Your task to perform on an android device: Turn off the flashlight Image 0: 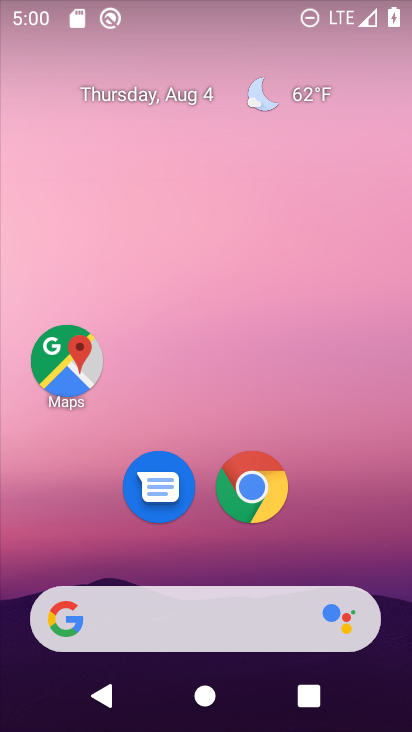
Step 0: drag from (181, 465) to (179, 141)
Your task to perform on an android device: Turn off the flashlight Image 1: 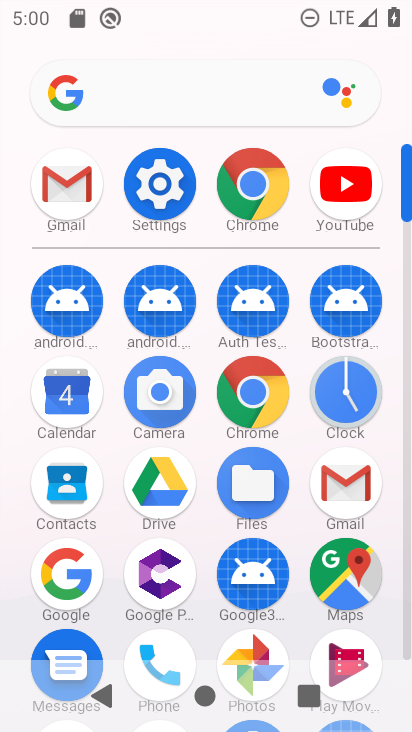
Step 1: click (180, 159)
Your task to perform on an android device: Turn off the flashlight Image 2: 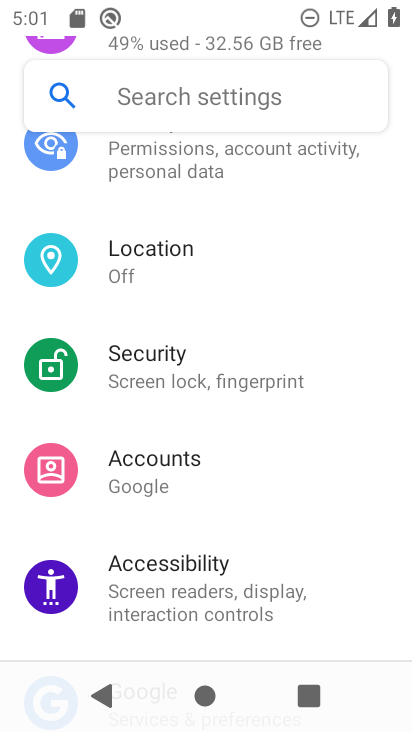
Step 2: click (248, 84)
Your task to perform on an android device: Turn off the flashlight Image 3: 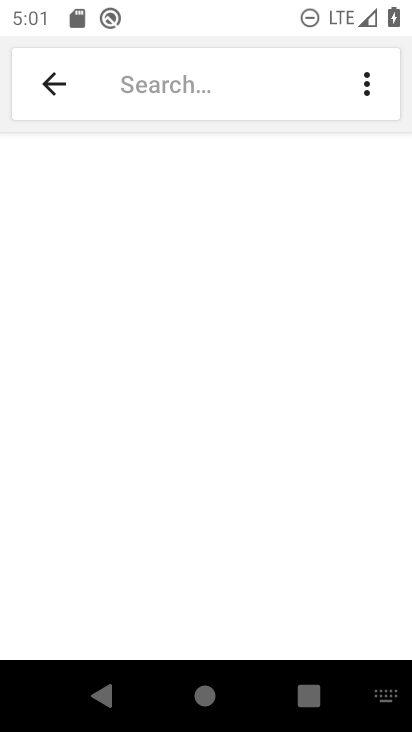
Step 3: type "flashlight"
Your task to perform on an android device: Turn off the flashlight Image 4: 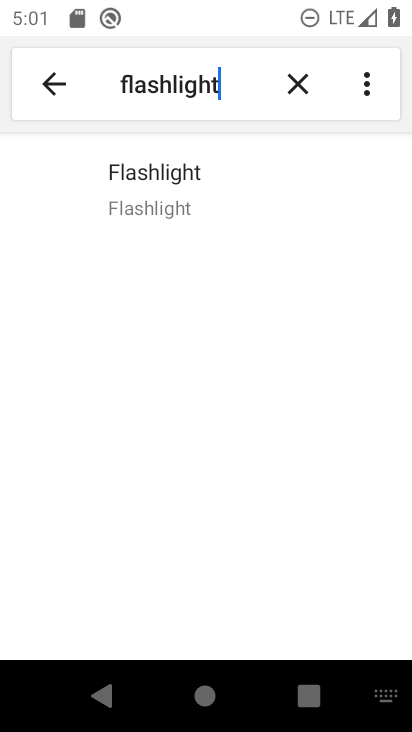
Step 4: click (160, 196)
Your task to perform on an android device: Turn off the flashlight Image 5: 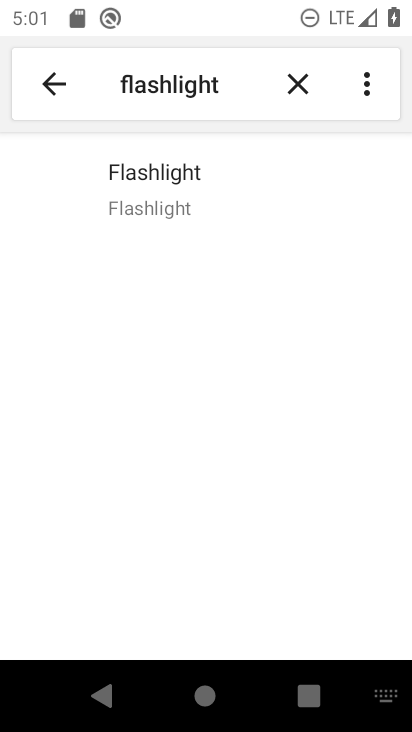
Step 5: click (154, 199)
Your task to perform on an android device: Turn off the flashlight Image 6: 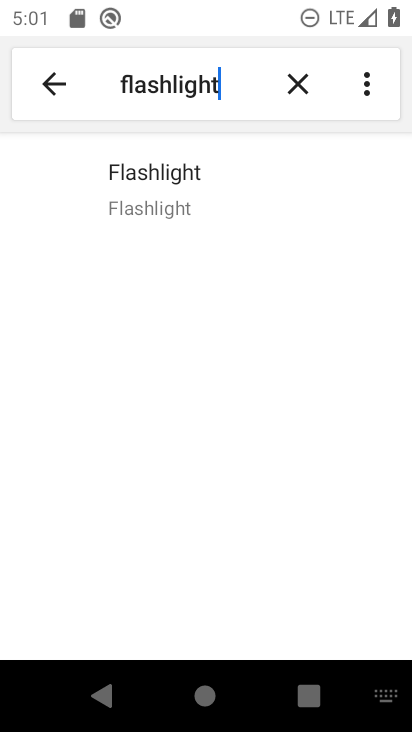
Step 6: task complete